Your task to perform on an android device: What's the latest news in space science? Image 0: 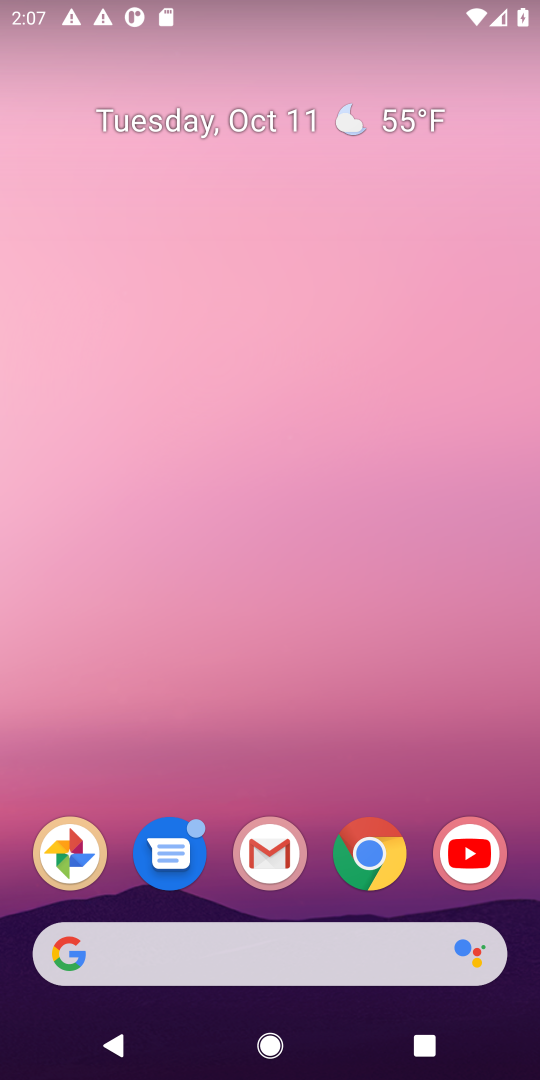
Step 0: drag from (185, 905) to (309, 7)
Your task to perform on an android device: What's the latest news in space science? Image 1: 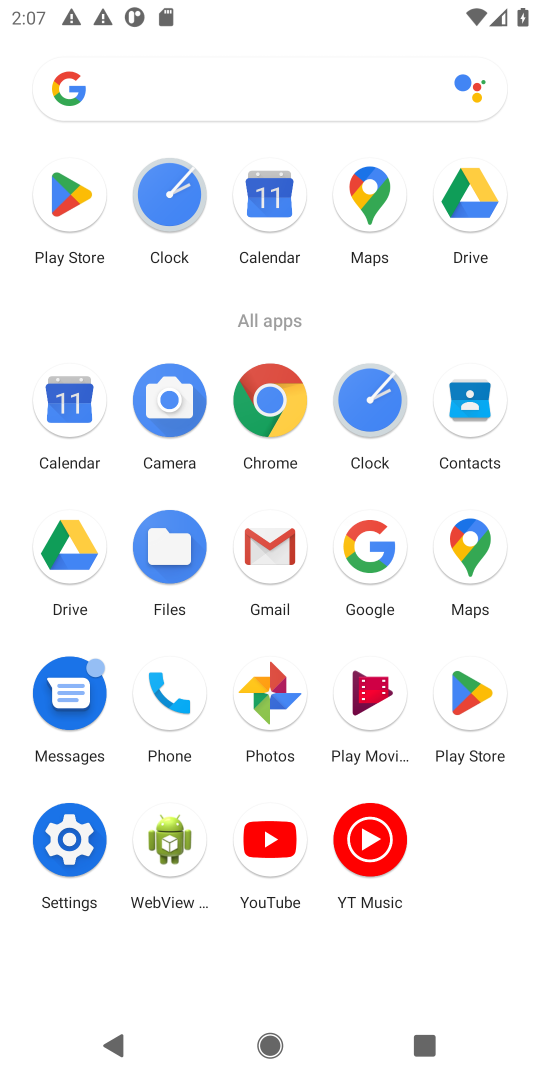
Step 1: click (365, 539)
Your task to perform on an android device: What's the latest news in space science? Image 2: 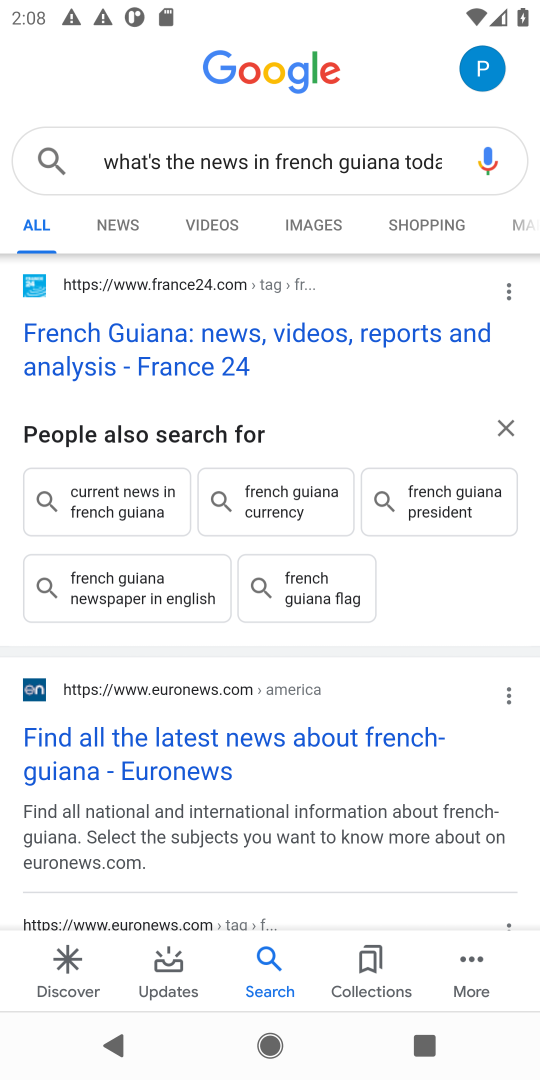
Step 2: click (307, 353)
Your task to perform on an android device: What's the latest news in space science? Image 3: 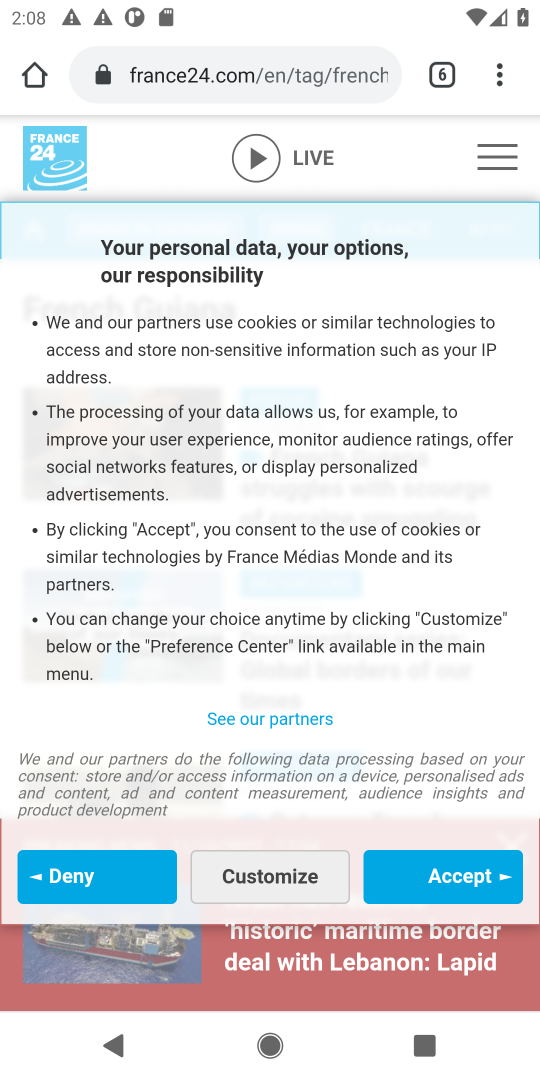
Step 3: task complete